Your task to perform on an android device: Open wifi settings Image 0: 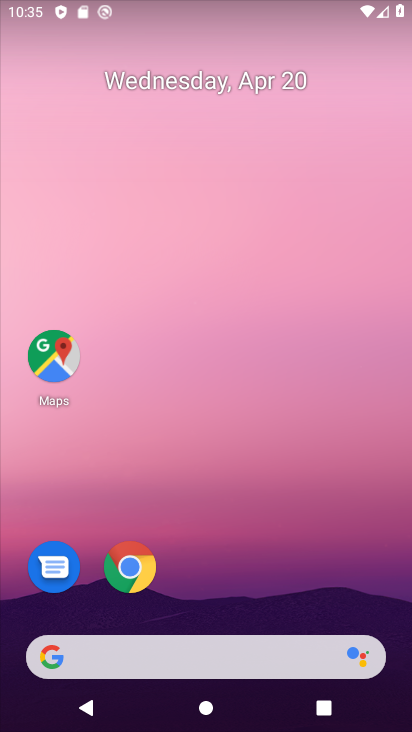
Step 0: drag from (206, 598) to (206, 34)
Your task to perform on an android device: Open wifi settings Image 1: 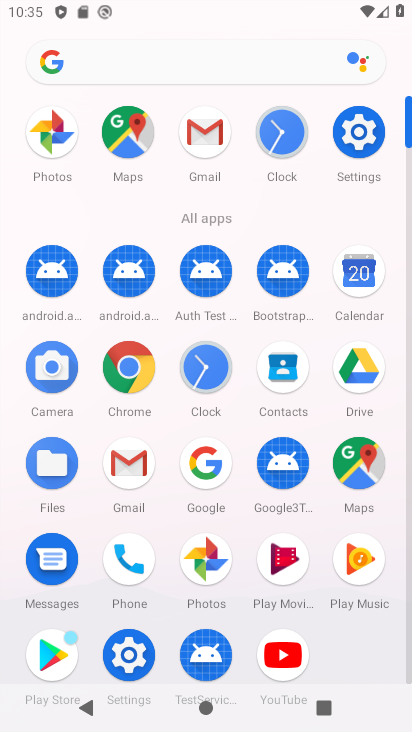
Step 1: click (356, 142)
Your task to perform on an android device: Open wifi settings Image 2: 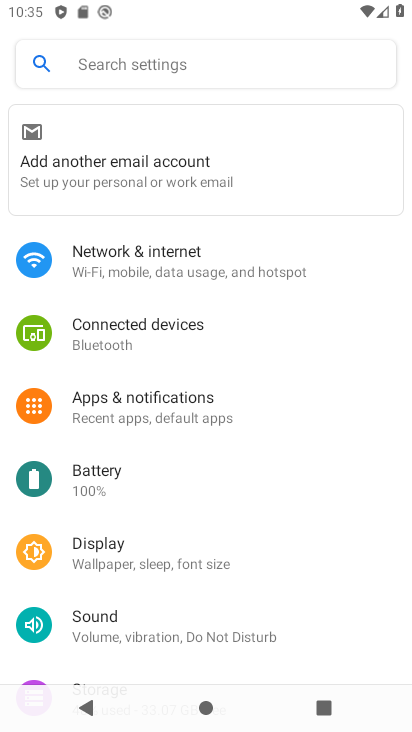
Step 2: click (142, 254)
Your task to perform on an android device: Open wifi settings Image 3: 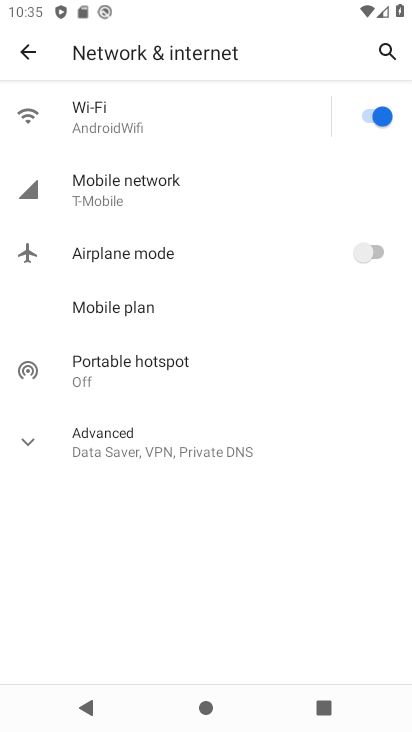
Step 3: click (129, 119)
Your task to perform on an android device: Open wifi settings Image 4: 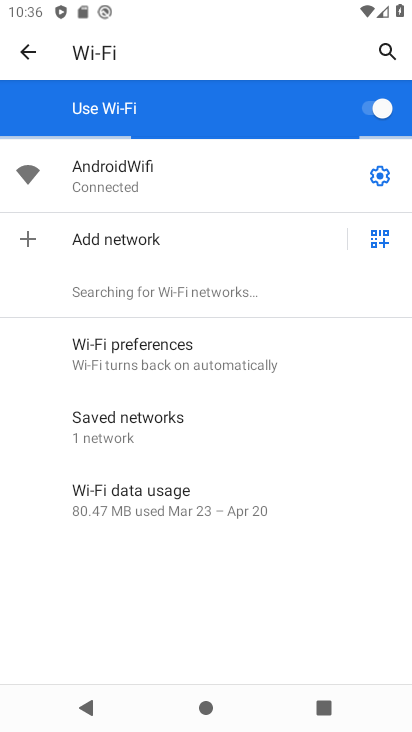
Step 4: task complete